Your task to perform on an android device: toggle translation in the chrome app Image 0: 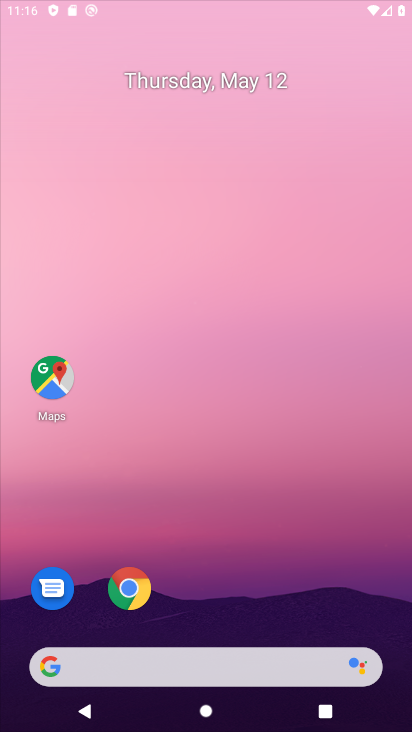
Step 0: click (214, 210)
Your task to perform on an android device: toggle translation in the chrome app Image 1: 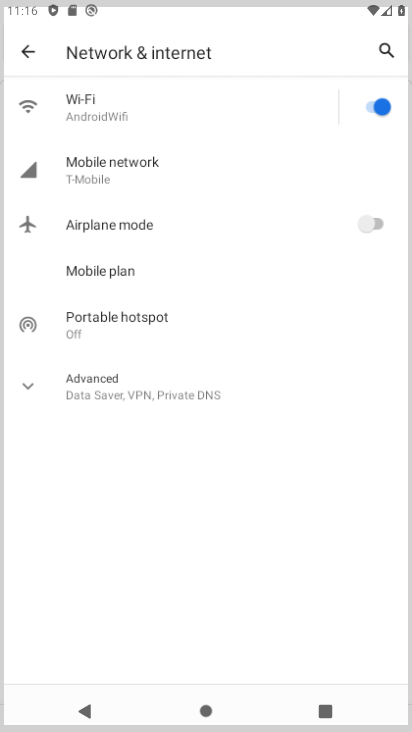
Step 1: drag from (210, 621) to (185, 189)
Your task to perform on an android device: toggle translation in the chrome app Image 2: 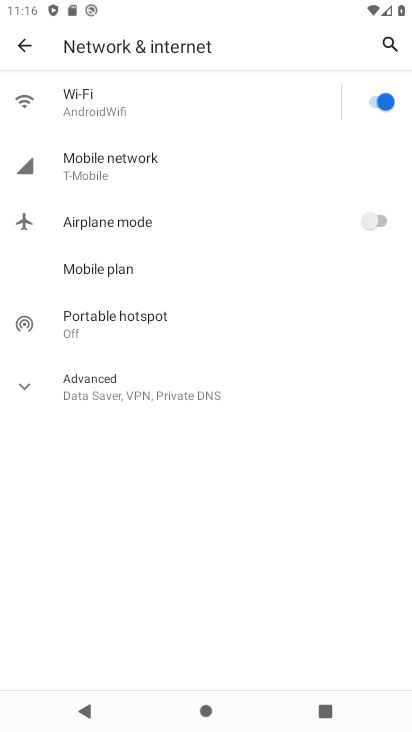
Step 2: press home button
Your task to perform on an android device: toggle translation in the chrome app Image 3: 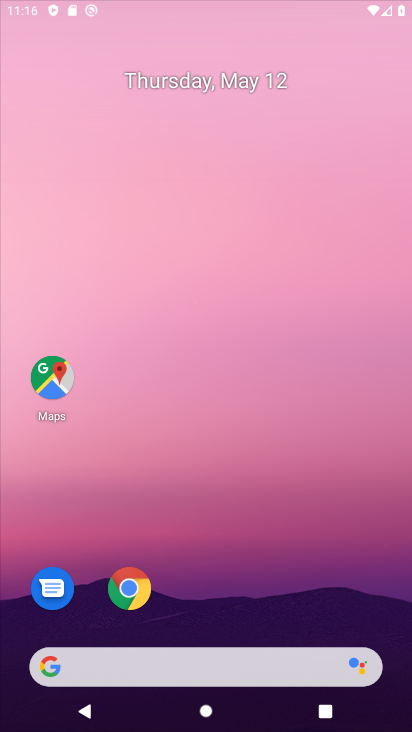
Step 3: drag from (170, 590) to (149, 9)
Your task to perform on an android device: toggle translation in the chrome app Image 4: 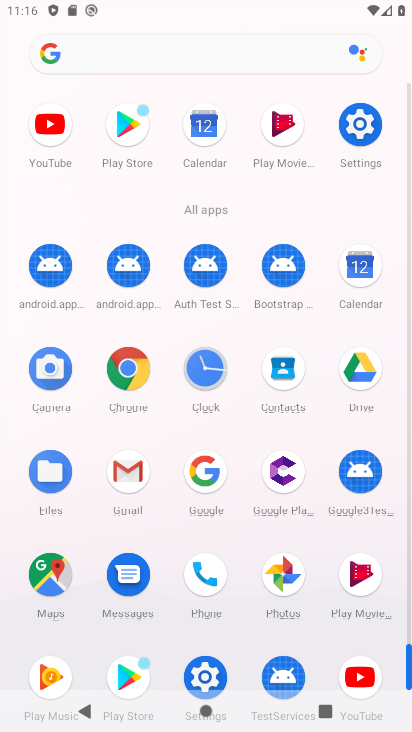
Step 4: click (126, 367)
Your task to perform on an android device: toggle translation in the chrome app Image 5: 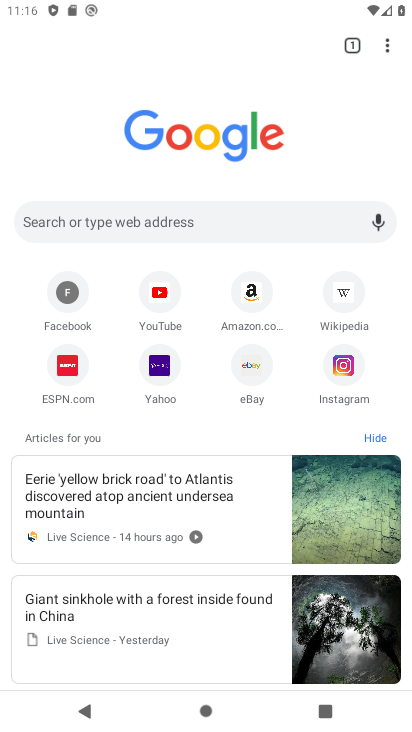
Step 5: drag from (236, 631) to (376, 671)
Your task to perform on an android device: toggle translation in the chrome app Image 6: 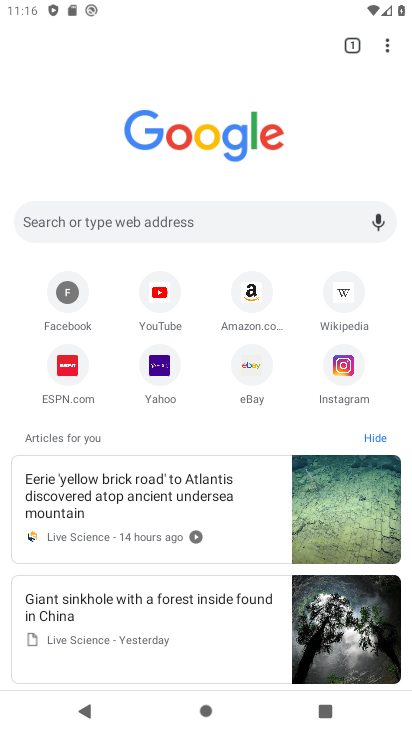
Step 6: drag from (390, 59) to (275, 385)
Your task to perform on an android device: toggle translation in the chrome app Image 7: 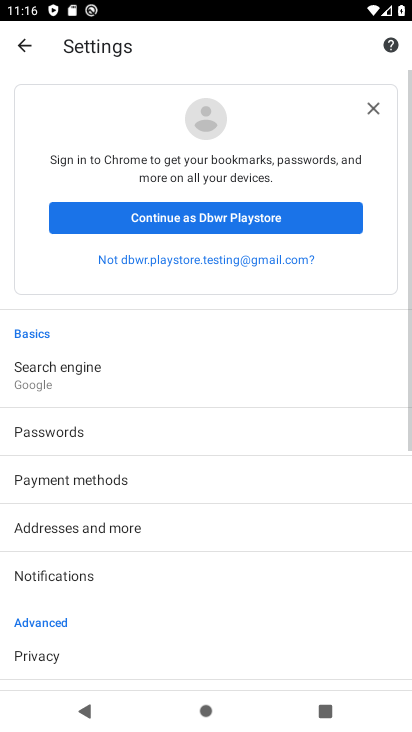
Step 7: drag from (141, 502) to (190, 189)
Your task to perform on an android device: toggle translation in the chrome app Image 8: 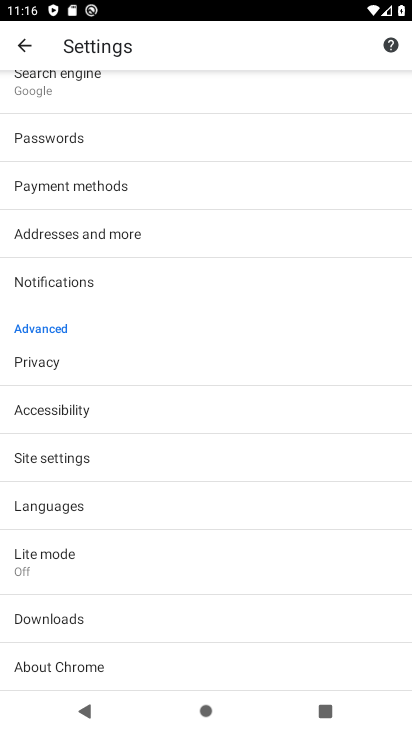
Step 8: click (28, 503)
Your task to perform on an android device: toggle translation in the chrome app Image 9: 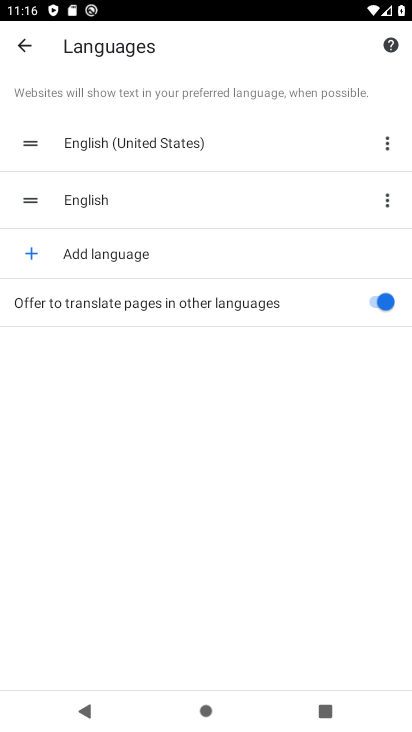
Step 9: click (339, 304)
Your task to perform on an android device: toggle translation in the chrome app Image 10: 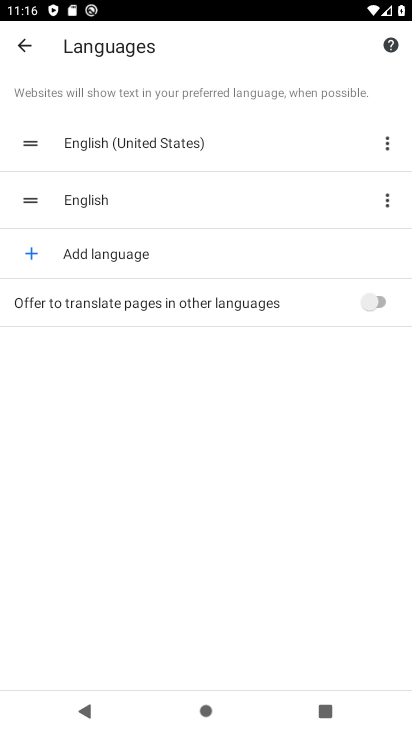
Step 10: task complete